Your task to perform on an android device: Open Youtube and go to the subscriptions tab Image 0: 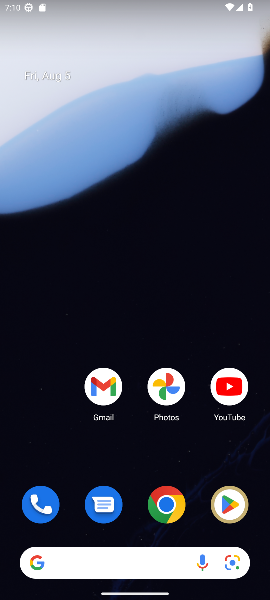
Step 0: click (228, 393)
Your task to perform on an android device: Open Youtube and go to the subscriptions tab Image 1: 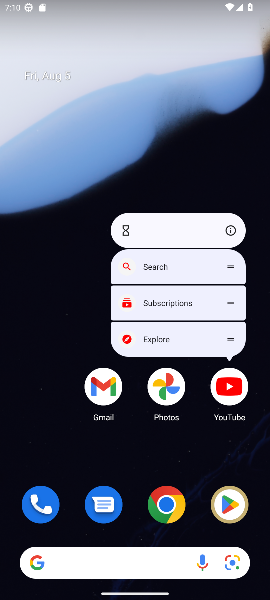
Step 1: click (228, 393)
Your task to perform on an android device: Open Youtube and go to the subscriptions tab Image 2: 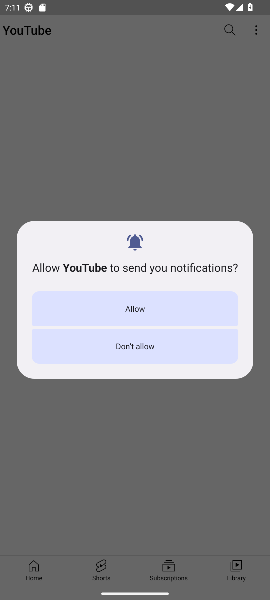
Step 2: click (126, 314)
Your task to perform on an android device: Open Youtube and go to the subscriptions tab Image 3: 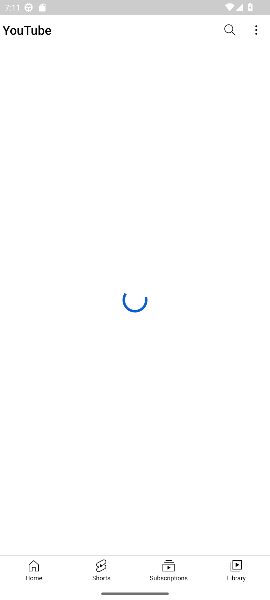
Step 3: click (165, 574)
Your task to perform on an android device: Open Youtube and go to the subscriptions tab Image 4: 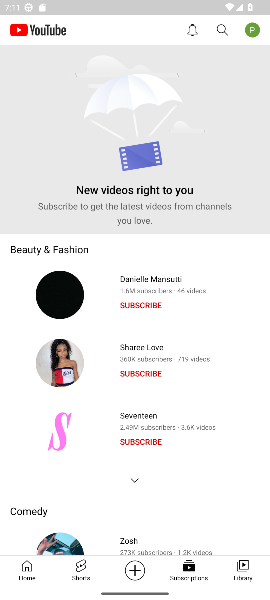
Step 4: task complete